Your task to perform on an android device: Open Chrome and go to settings Image 0: 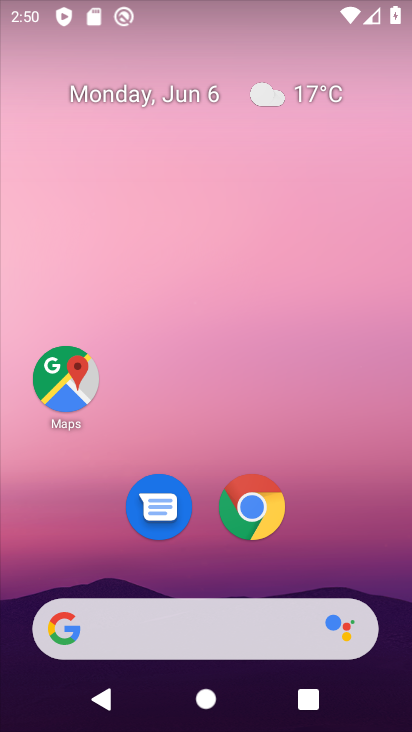
Step 0: click (266, 525)
Your task to perform on an android device: Open Chrome and go to settings Image 1: 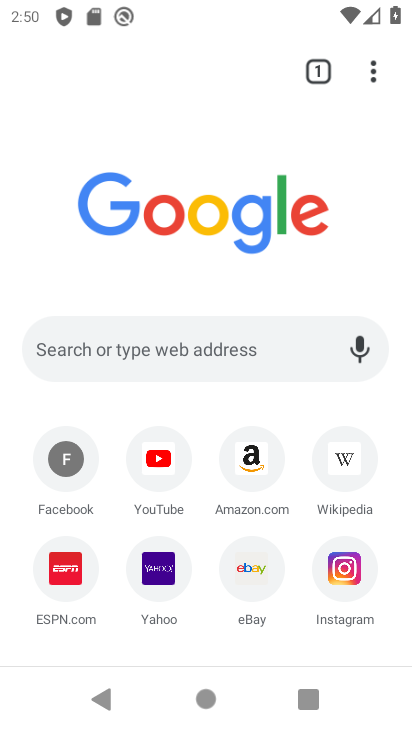
Step 1: task complete